Your task to perform on an android device: open chrome privacy settings Image 0: 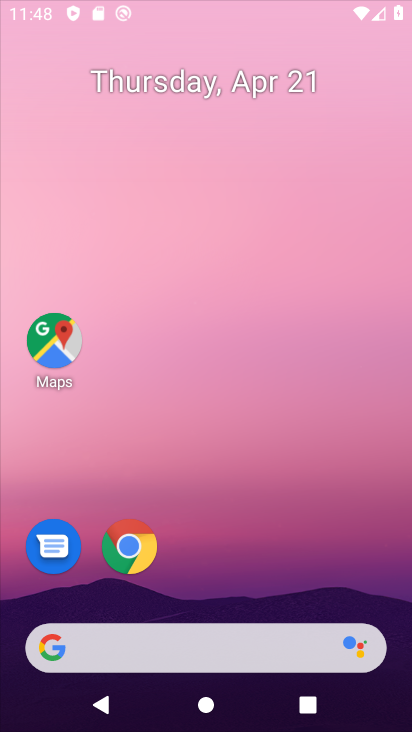
Step 0: drag from (219, 710) to (222, 143)
Your task to perform on an android device: open chrome privacy settings Image 1: 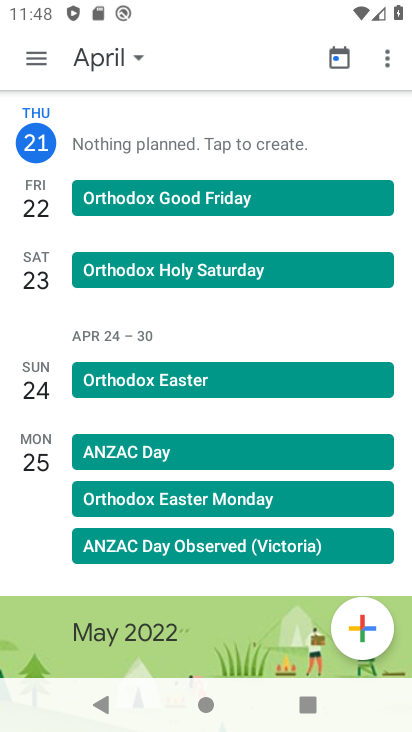
Step 1: press home button
Your task to perform on an android device: open chrome privacy settings Image 2: 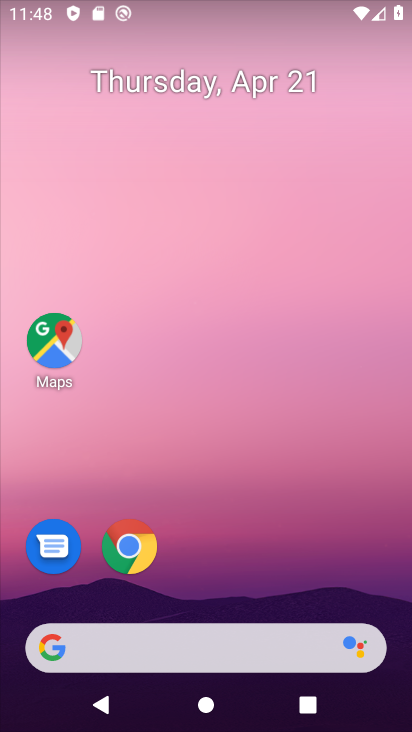
Step 2: click (131, 545)
Your task to perform on an android device: open chrome privacy settings Image 3: 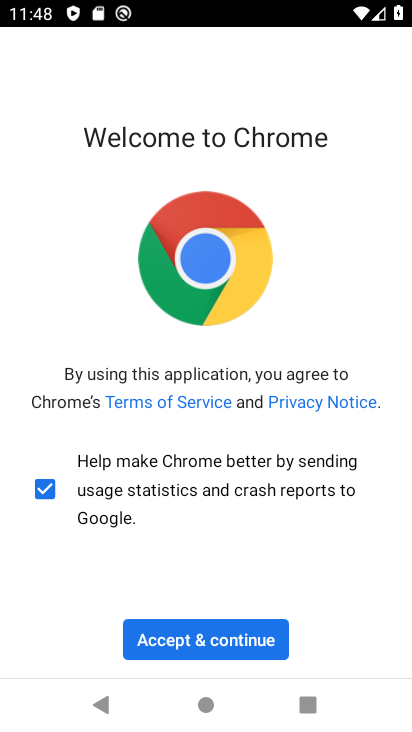
Step 3: click (191, 643)
Your task to perform on an android device: open chrome privacy settings Image 4: 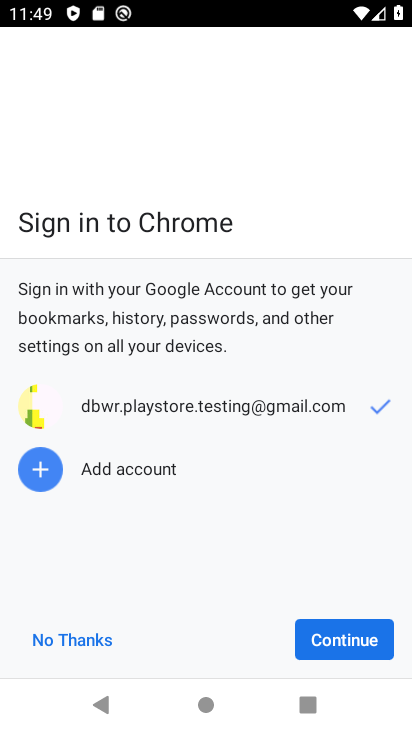
Step 4: click (353, 646)
Your task to perform on an android device: open chrome privacy settings Image 5: 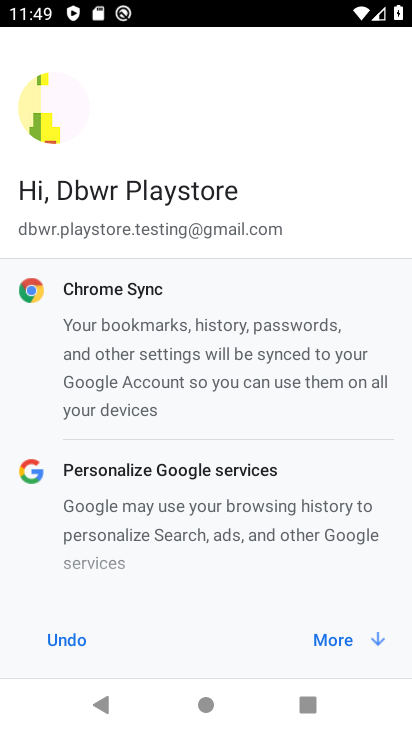
Step 5: click (334, 636)
Your task to perform on an android device: open chrome privacy settings Image 6: 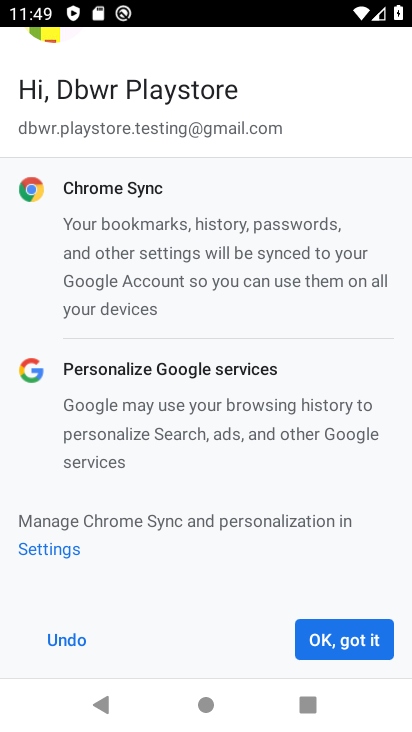
Step 6: click (332, 638)
Your task to perform on an android device: open chrome privacy settings Image 7: 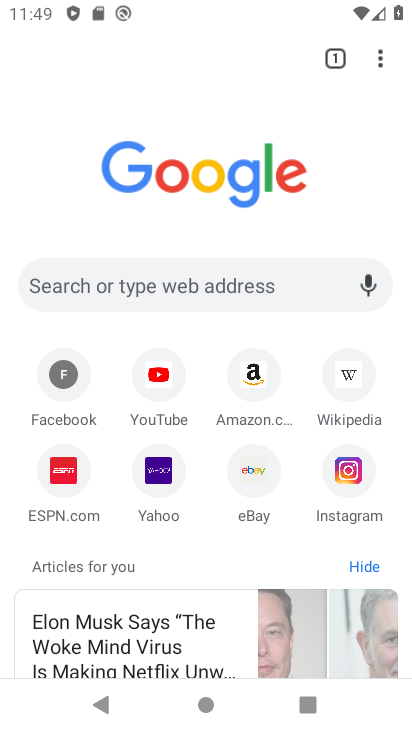
Step 7: drag from (377, 56) to (215, 491)
Your task to perform on an android device: open chrome privacy settings Image 8: 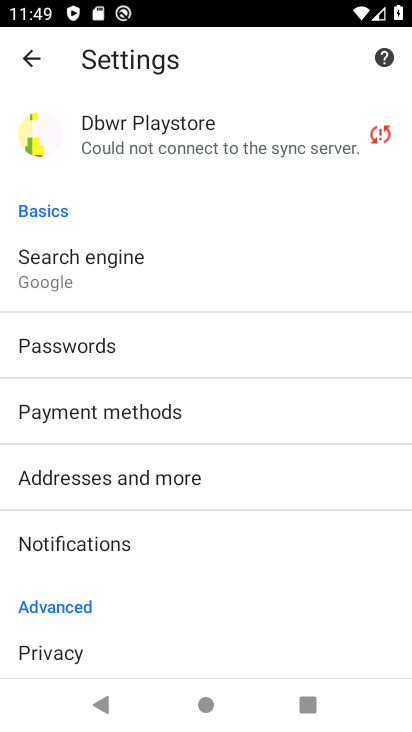
Step 8: drag from (177, 639) to (182, 358)
Your task to perform on an android device: open chrome privacy settings Image 9: 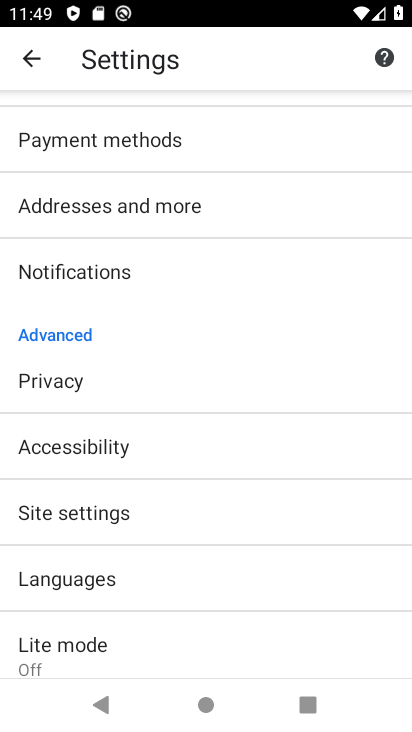
Step 9: click (55, 375)
Your task to perform on an android device: open chrome privacy settings Image 10: 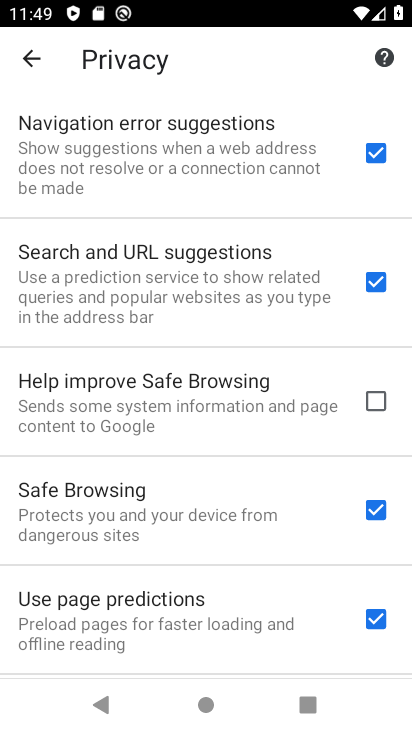
Step 10: task complete